Your task to perform on an android device: toggle show notifications on the lock screen Image 0: 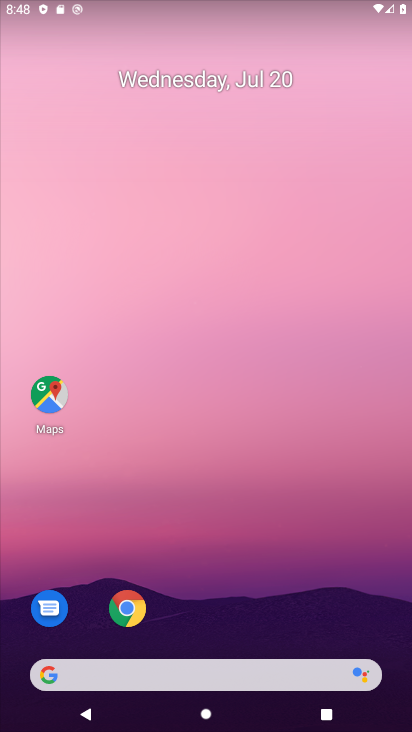
Step 0: drag from (270, 497) to (179, 17)
Your task to perform on an android device: toggle show notifications on the lock screen Image 1: 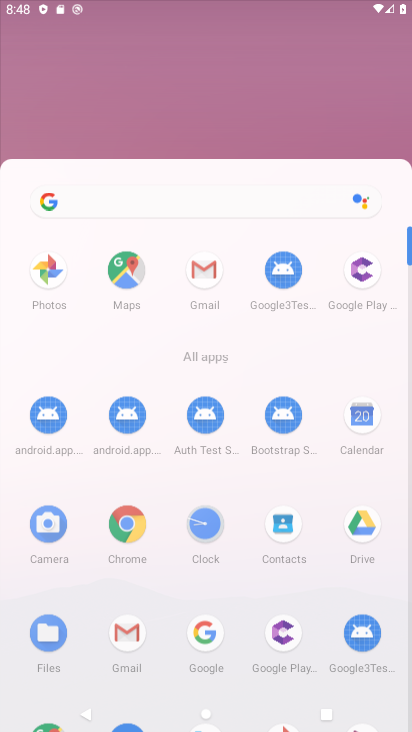
Step 1: drag from (198, 449) to (164, 111)
Your task to perform on an android device: toggle show notifications on the lock screen Image 2: 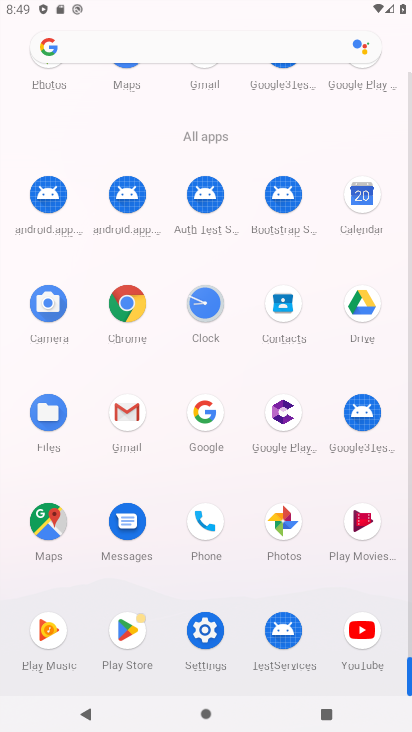
Step 2: click (205, 632)
Your task to perform on an android device: toggle show notifications on the lock screen Image 3: 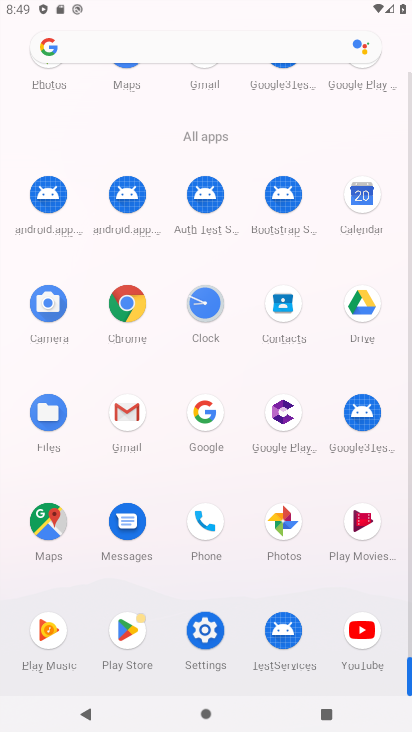
Step 3: click (204, 623)
Your task to perform on an android device: toggle show notifications on the lock screen Image 4: 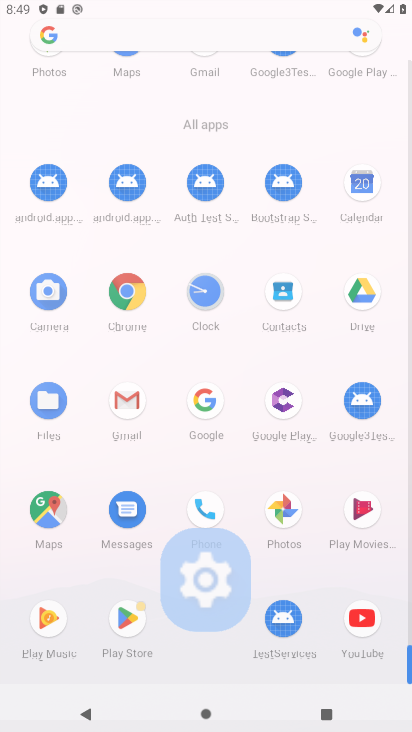
Step 4: click (205, 618)
Your task to perform on an android device: toggle show notifications on the lock screen Image 5: 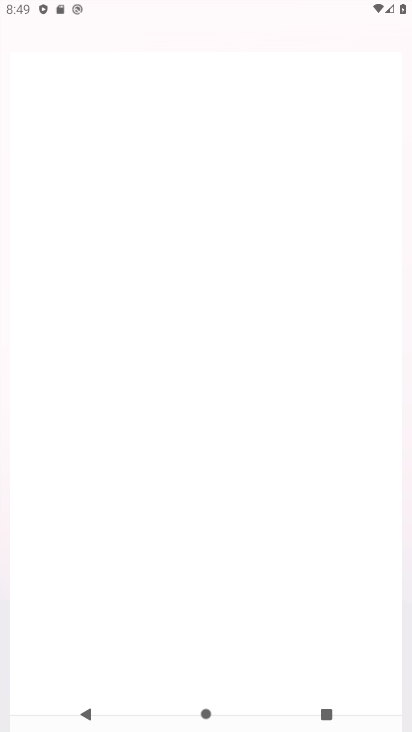
Step 5: click (205, 618)
Your task to perform on an android device: toggle show notifications on the lock screen Image 6: 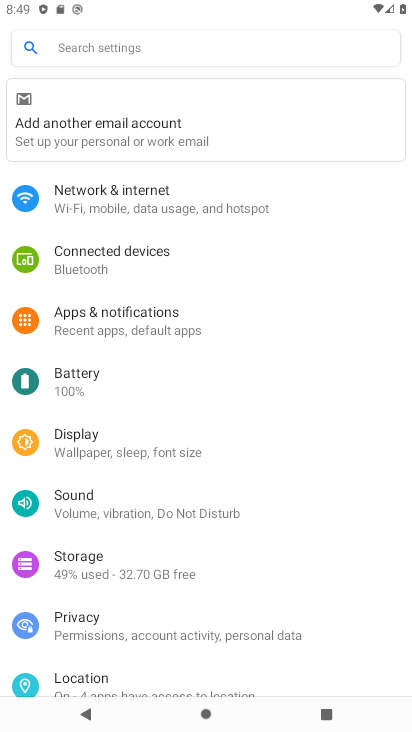
Step 6: click (110, 311)
Your task to perform on an android device: toggle show notifications on the lock screen Image 7: 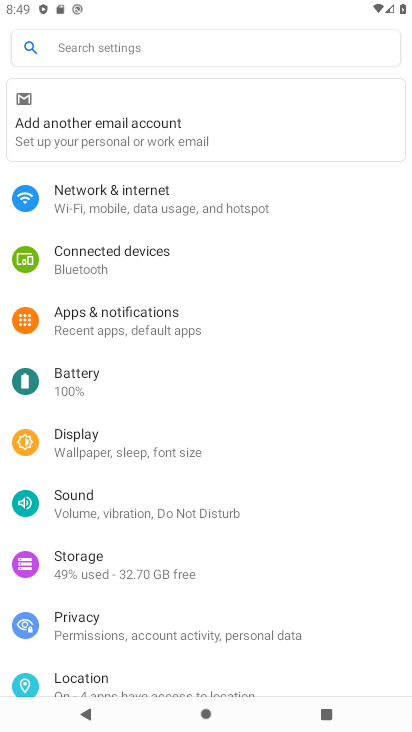
Step 7: click (111, 313)
Your task to perform on an android device: toggle show notifications on the lock screen Image 8: 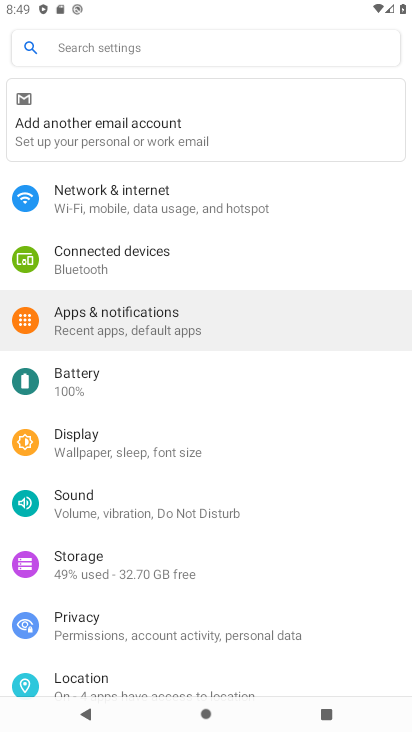
Step 8: click (112, 315)
Your task to perform on an android device: toggle show notifications on the lock screen Image 9: 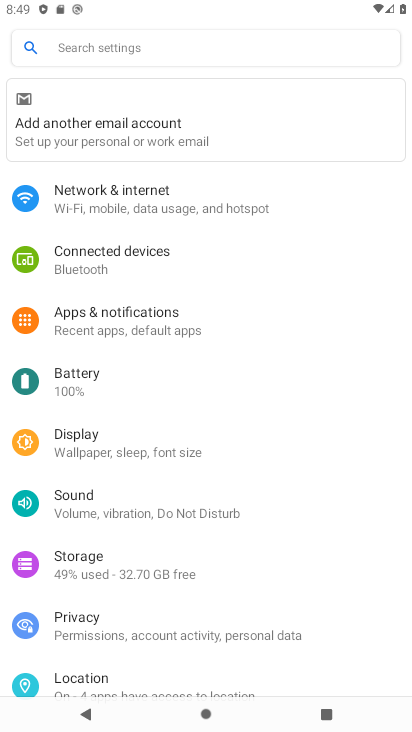
Step 9: click (112, 315)
Your task to perform on an android device: toggle show notifications on the lock screen Image 10: 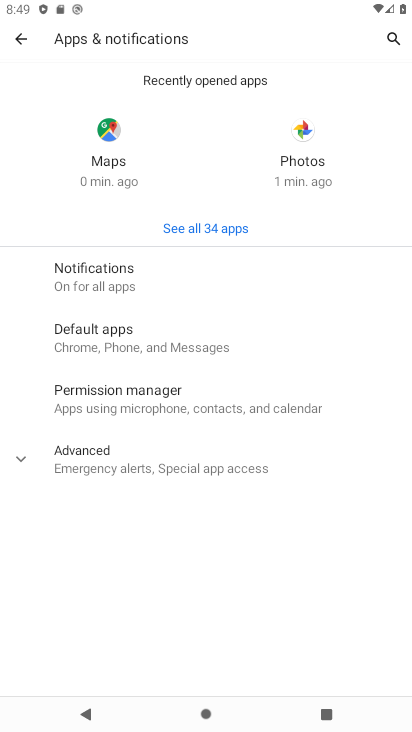
Step 10: click (89, 262)
Your task to perform on an android device: toggle show notifications on the lock screen Image 11: 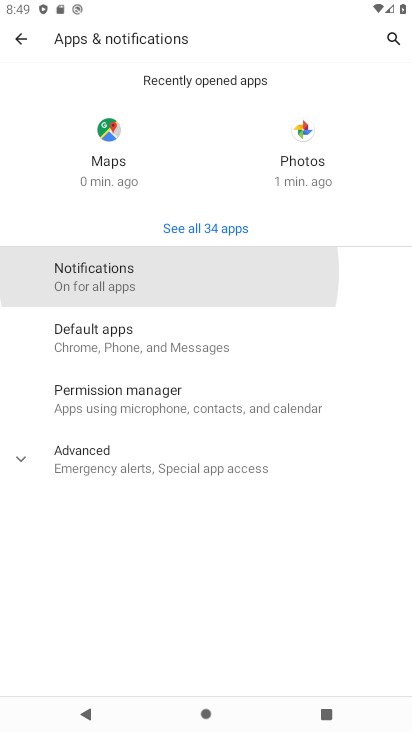
Step 11: click (94, 267)
Your task to perform on an android device: toggle show notifications on the lock screen Image 12: 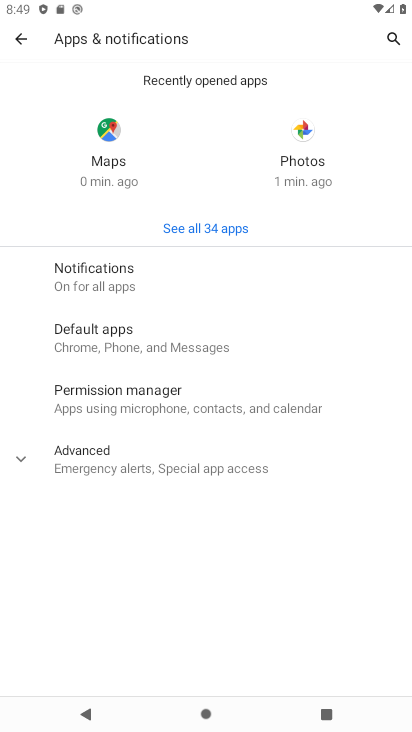
Step 12: click (102, 270)
Your task to perform on an android device: toggle show notifications on the lock screen Image 13: 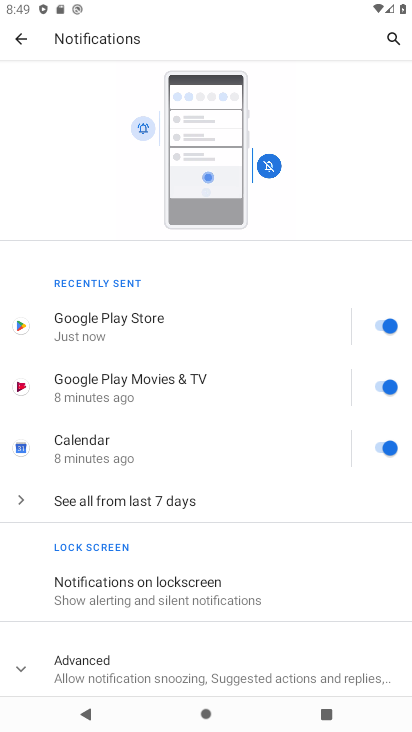
Step 13: click (150, 590)
Your task to perform on an android device: toggle show notifications on the lock screen Image 14: 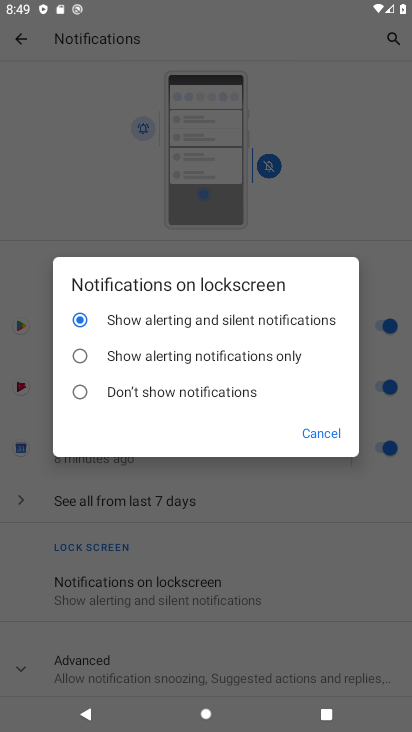
Step 14: click (320, 431)
Your task to perform on an android device: toggle show notifications on the lock screen Image 15: 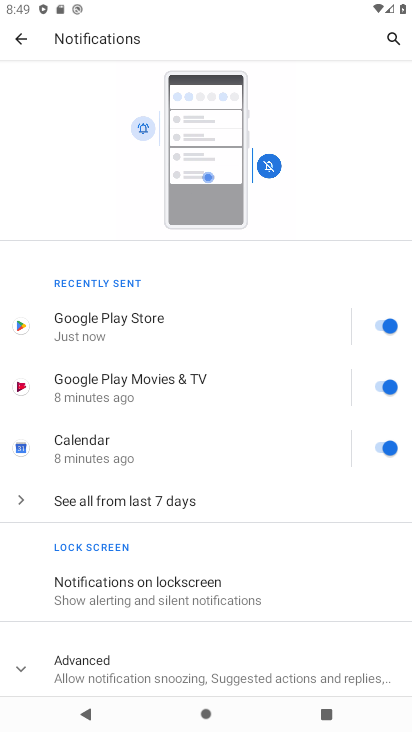
Step 15: task complete